Your task to perform on an android device: turn off improve location accuracy Image 0: 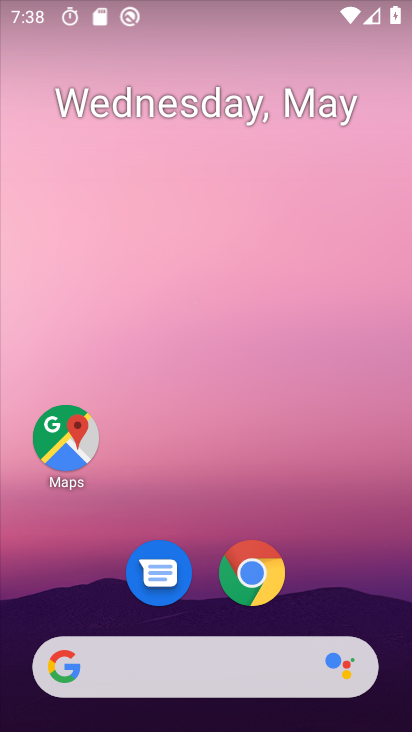
Step 0: drag from (348, 621) to (291, 13)
Your task to perform on an android device: turn off improve location accuracy Image 1: 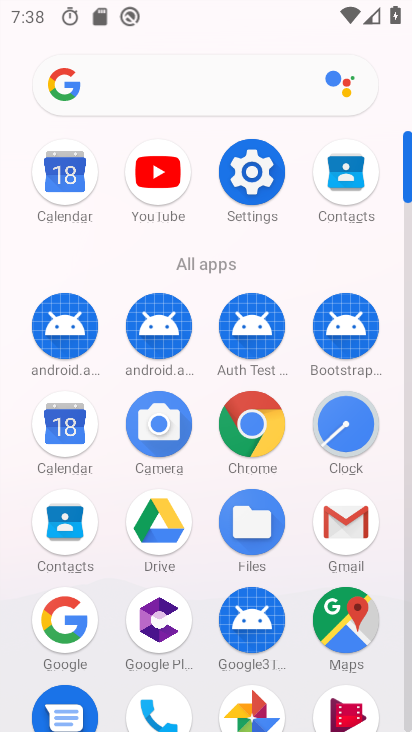
Step 1: click (248, 173)
Your task to perform on an android device: turn off improve location accuracy Image 2: 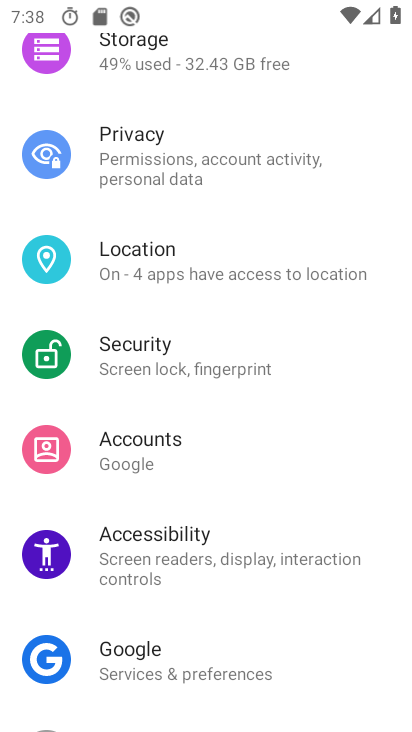
Step 2: drag from (236, 572) to (240, 494)
Your task to perform on an android device: turn off improve location accuracy Image 3: 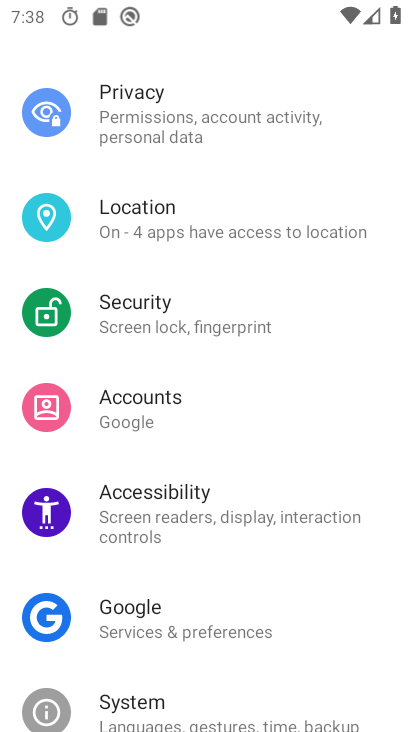
Step 3: click (268, 208)
Your task to perform on an android device: turn off improve location accuracy Image 4: 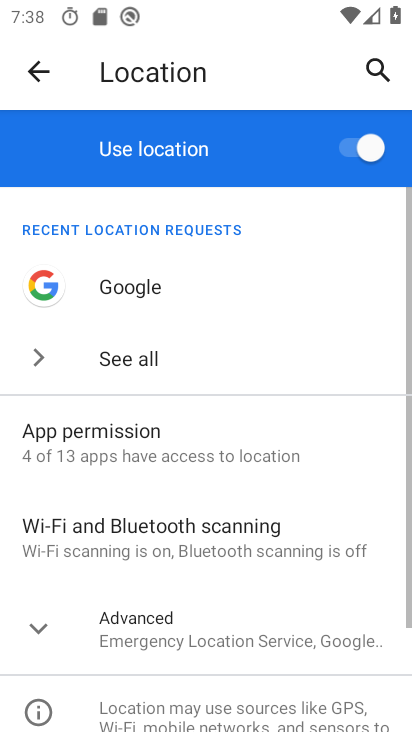
Step 4: click (266, 626)
Your task to perform on an android device: turn off improve location accuracy Image 5: 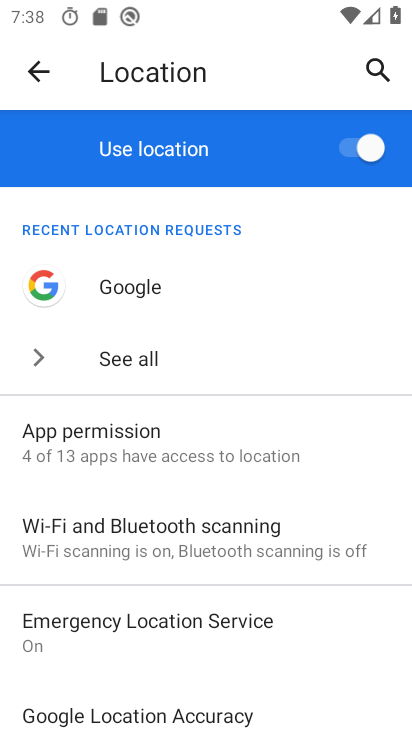
Step 5: drag from (265, 623) to (281, 314)
Your task to perform on an android device: turn off improve location accuracy Image 6: 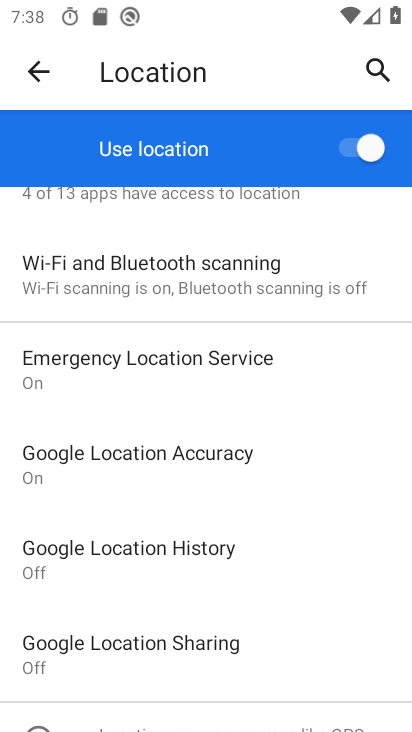
Step 6: click (254, 472)
Your task to perform on an android device: turn off improve location accuracy Image 7: 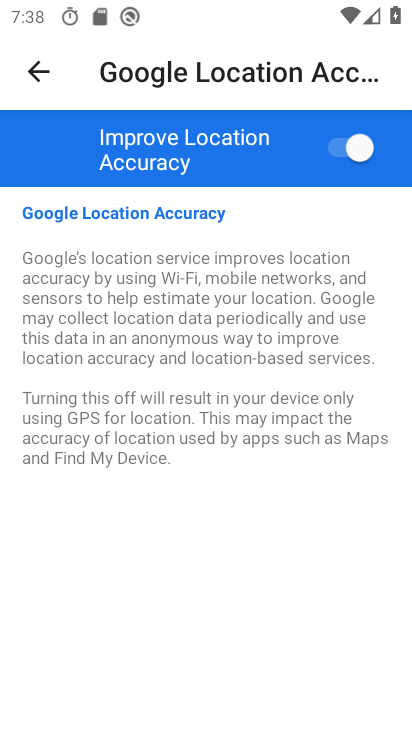
Step 7: click (353, 149)
Your task to perform on an android device: turn off improve location accuracy Image 8: 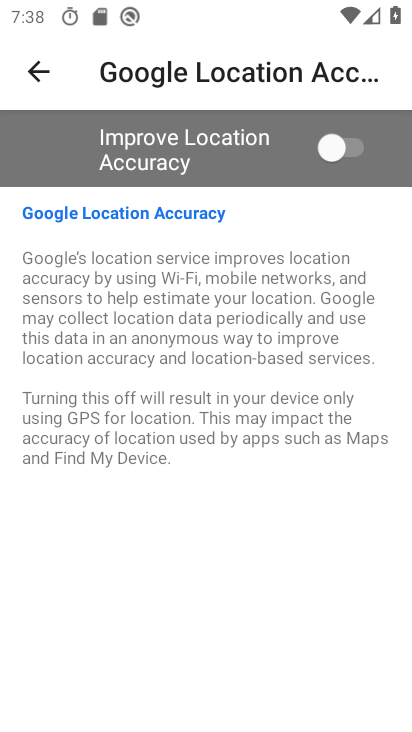
Step 8: task complete